Your task to perform on an android device: turn notification dots off Image 0: 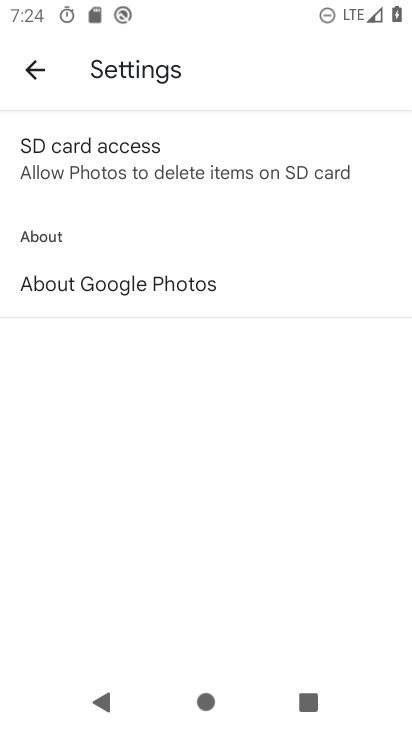
Step 0: press home button
Your task to perform on an android device: turn notification dots off Image 1: 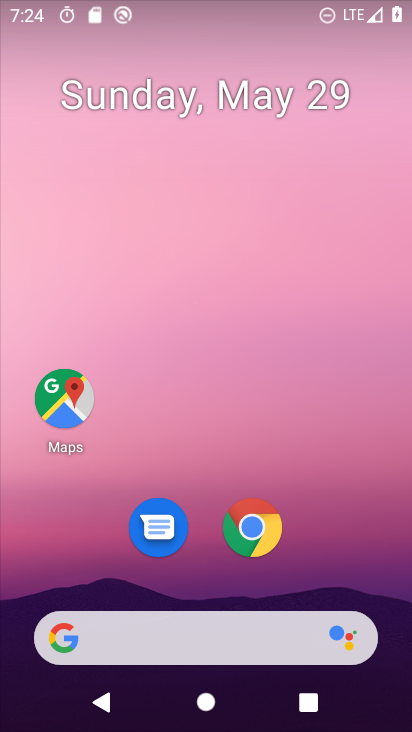
Step 1: drag from (387, 629) to (281, 22)
Your task to perform on an android device: turn notification dots off Image 2: 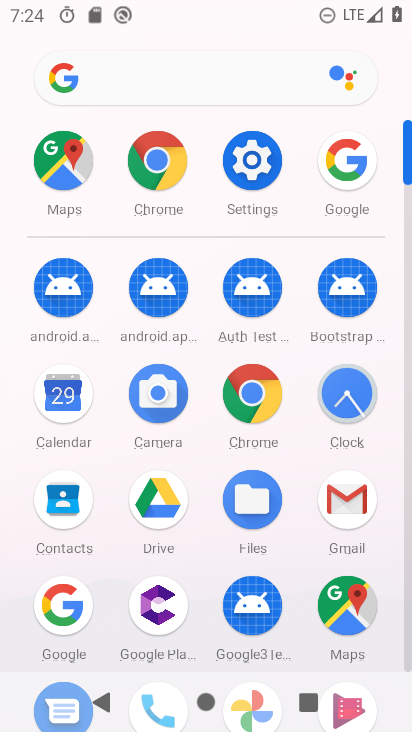
Step 2: click (268, 161)
Your task to perform on an android device: turn notification dots off Image 3: 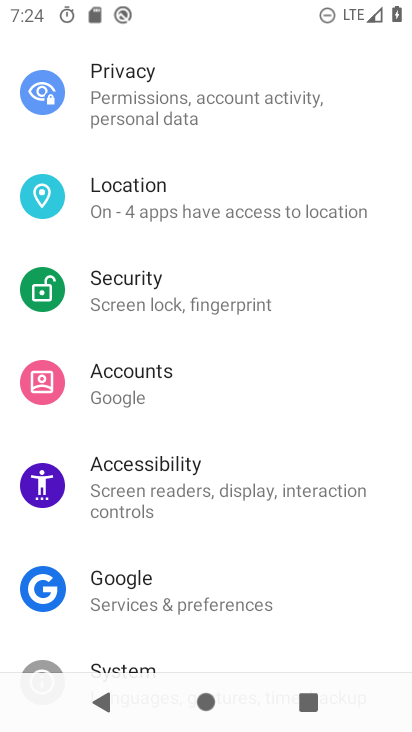
Step 3: drag from (159, 623) to (220, 223)
Your task to perform on an android device: turn notification dots off Image 4: 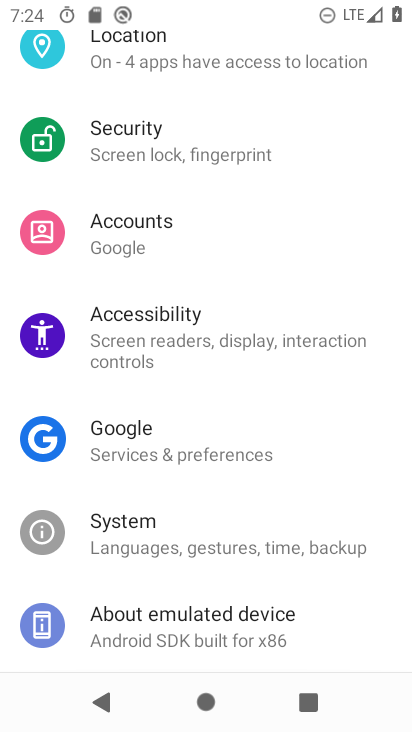
Step 4: drag from (216, 96) to (201, 658)
Your task to perform on an android device: turn notification dots off Image 5: 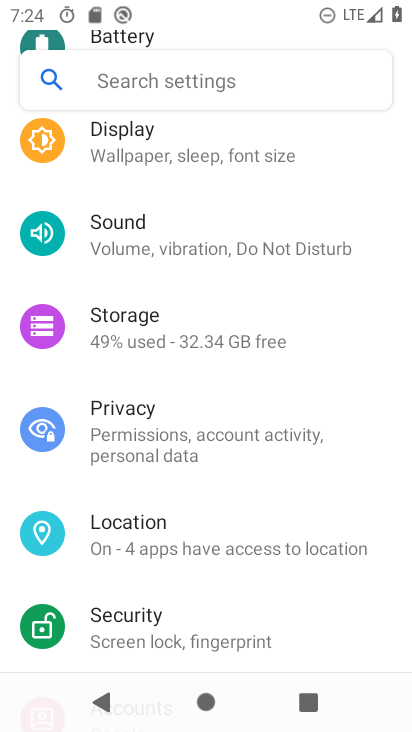
Step 5: drag from (192, 196) to (175, 692)
Your task to perform on an android device: turn notification dots off Image 6: 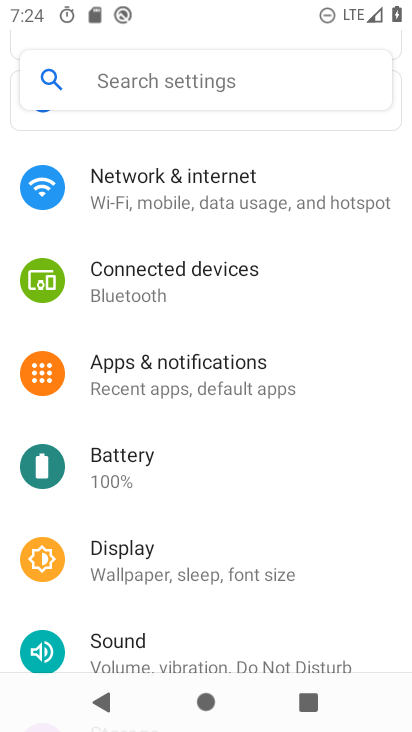
Step 6: click (251, 380)
Your task to perform on an android device: turn notification dots off Image 7: 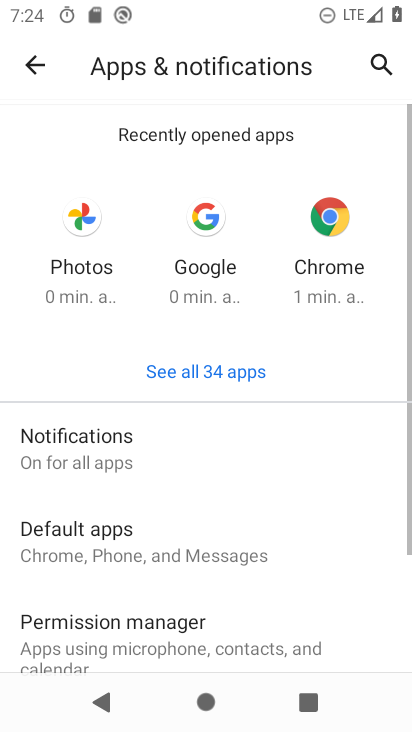
Step 7: click (132, 437)
Your task to perform on an android device: turn notification dots off Image 8: 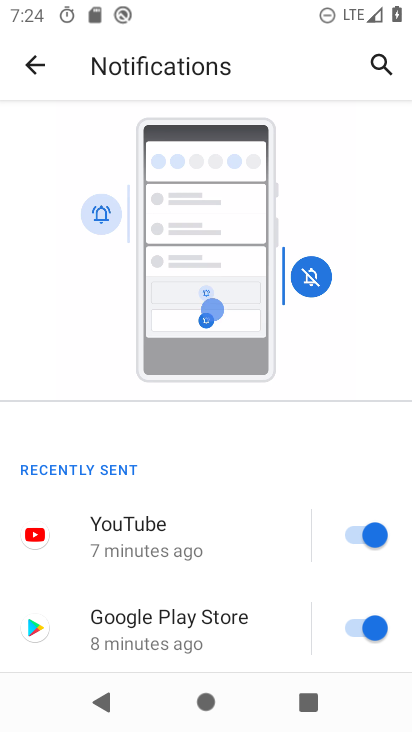
Step 8: drag from (102, 586) to (184, 57)
Your task to perform on an android device: turn notification dots off Image 9: 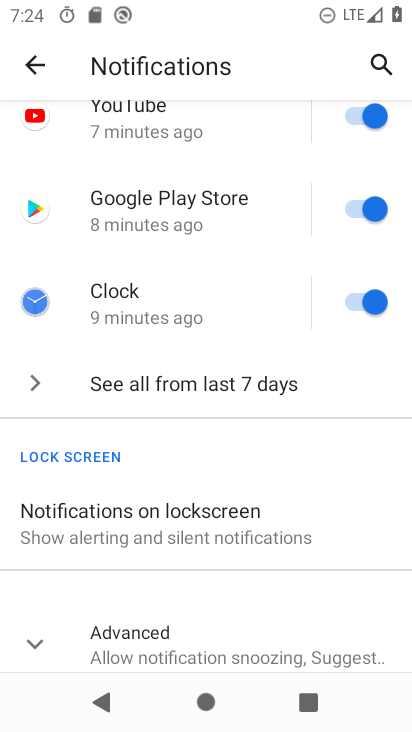
Step 9: click (130, 632)
Your task to perform on an android device: turn notification dots off Image 10: 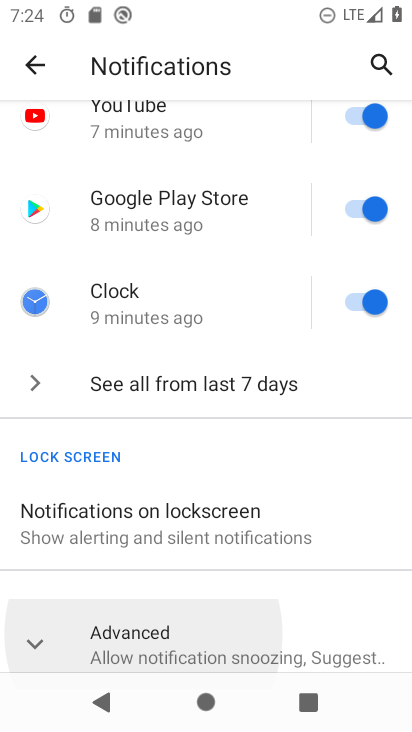
Step 10: drag from (130, 632) to (223, 71)
Your task to perform on an android device: turn notification dots off Image 11: 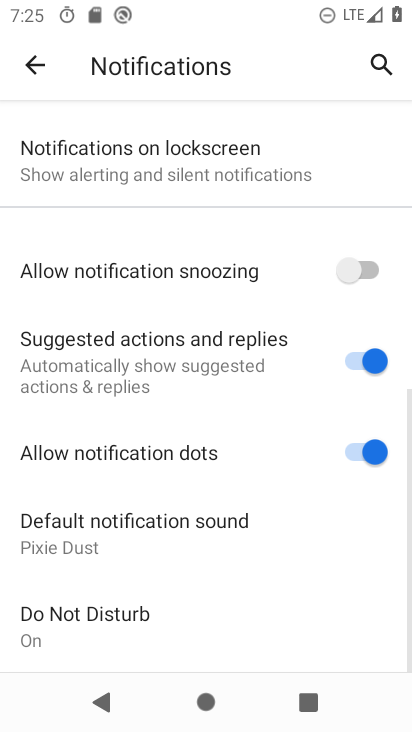
Step 11: drag from (151, 558) to (211, 182)
Your task to perform on an android device: turn notification dots off Image 12: 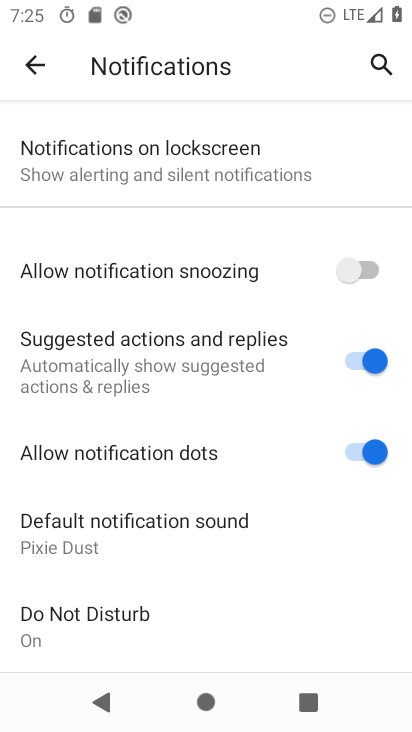
Step 12: click (312, 442)
Your task to perform on an android device: turn notification dots off Image 13: 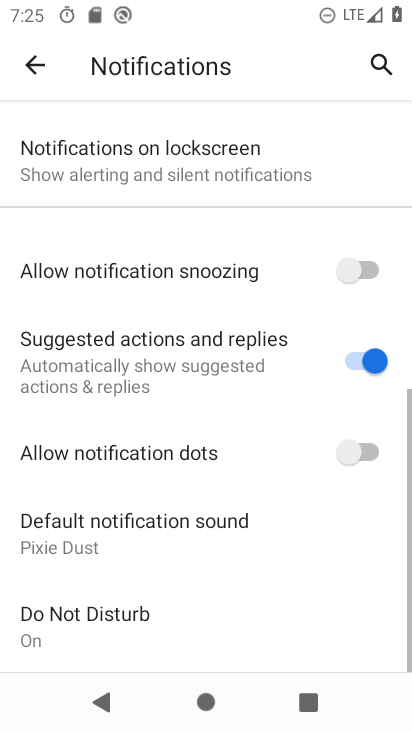
Step 13: task complete